Your task to perform on an android device: open sync settings in chrome Image 0: 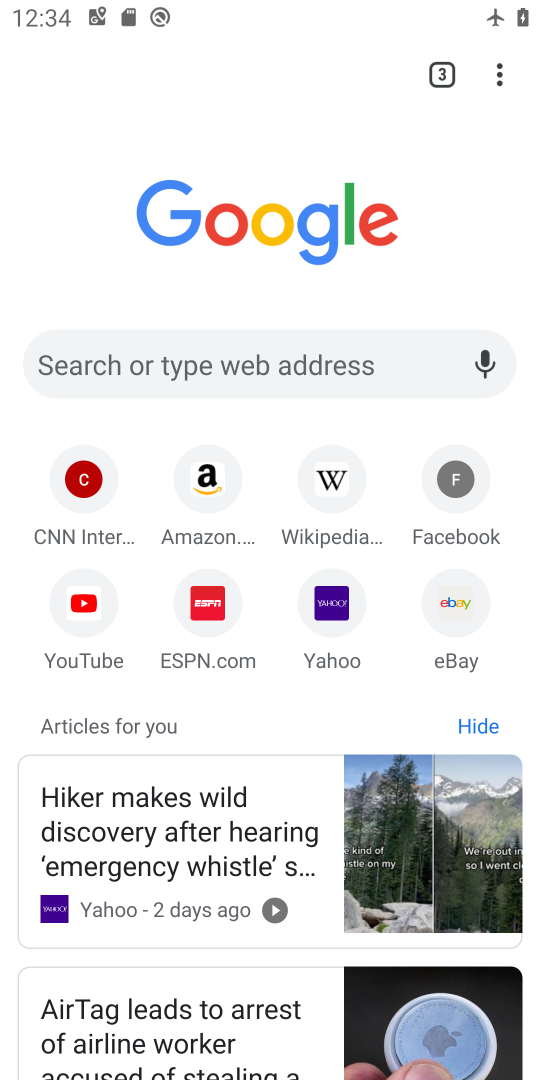
Step 0: click (499, 55)
Your task to perform on an android device: open sync settings in chrome Image 1: 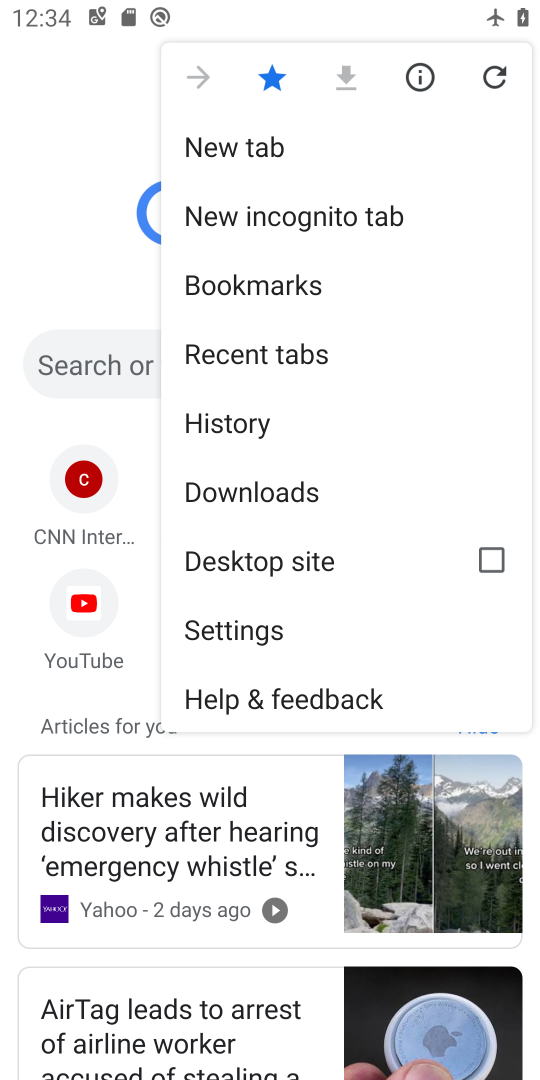
Step 1: click (261, 625)
Your task to perform on an android device: open sync settings in chrome Image 2: 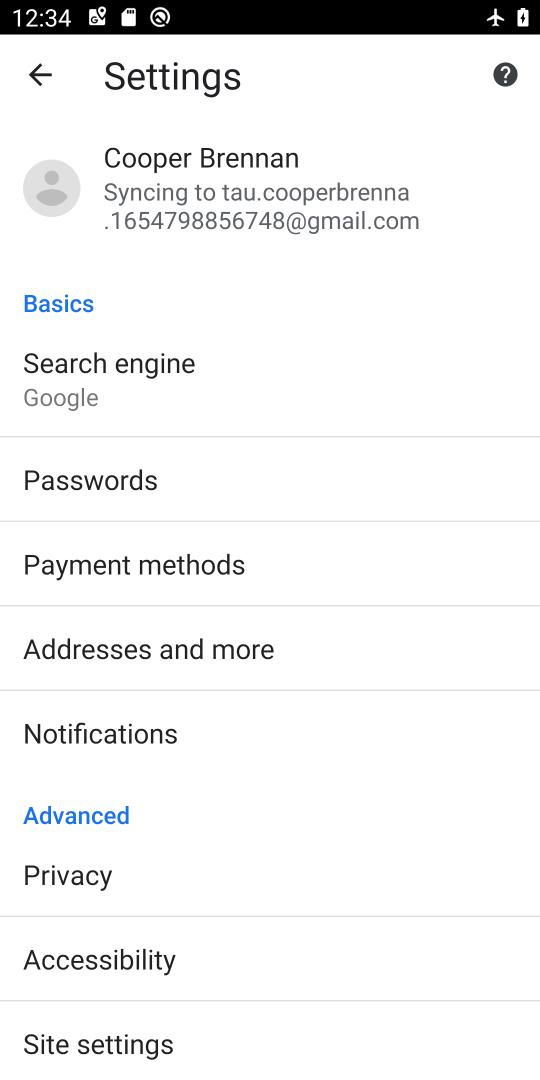
Step 2: click (163, 171)
Your task to perform on an android device: open sync settings in chrome Image 3: 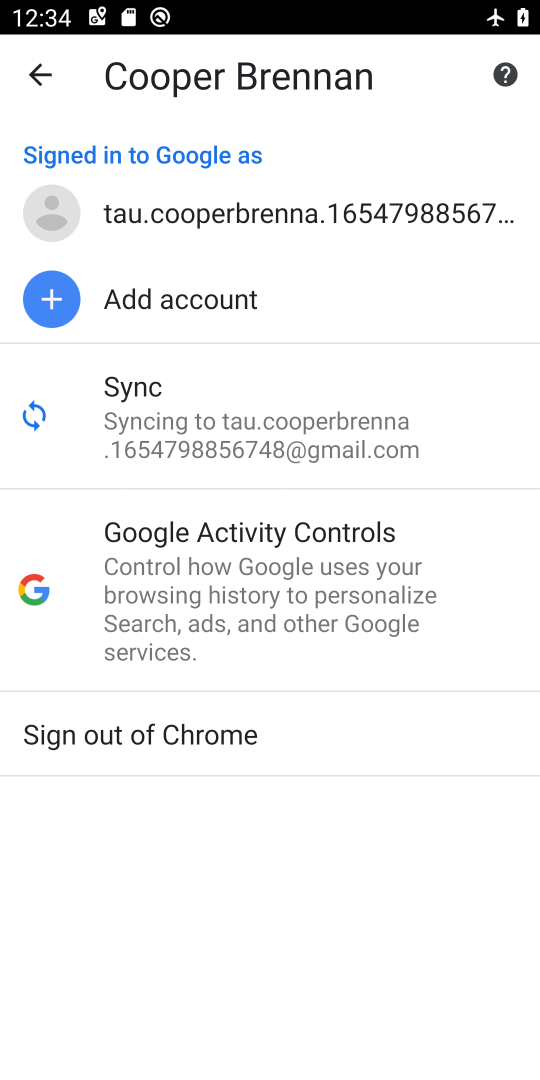
Step 3: click (130, 391)
Your task to perform on an android device: open sync settings in chrome Image 4: 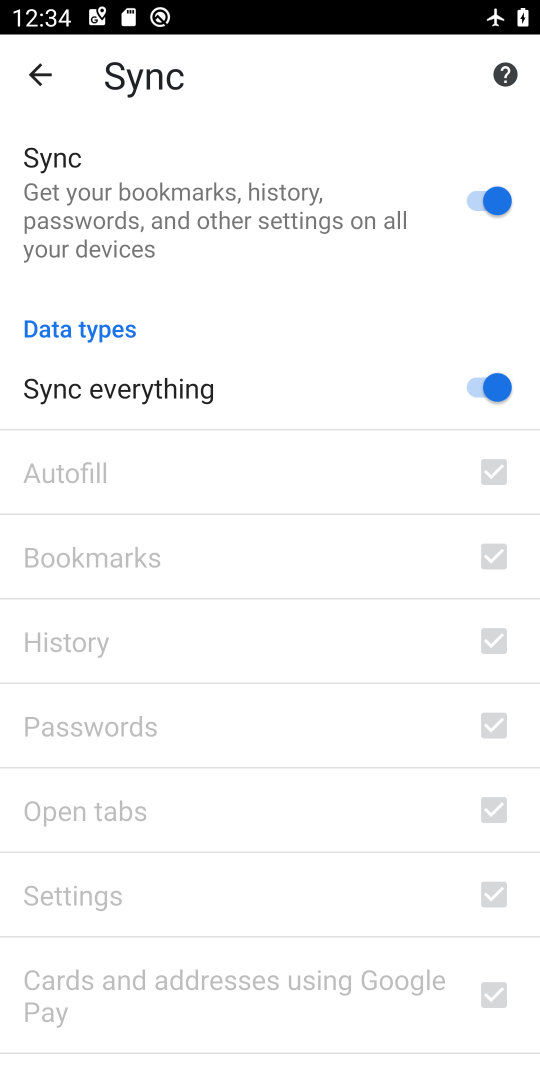
Step 4: task complete